Your task to perform on an android device: Show me popular games on the Play Store Image 0: 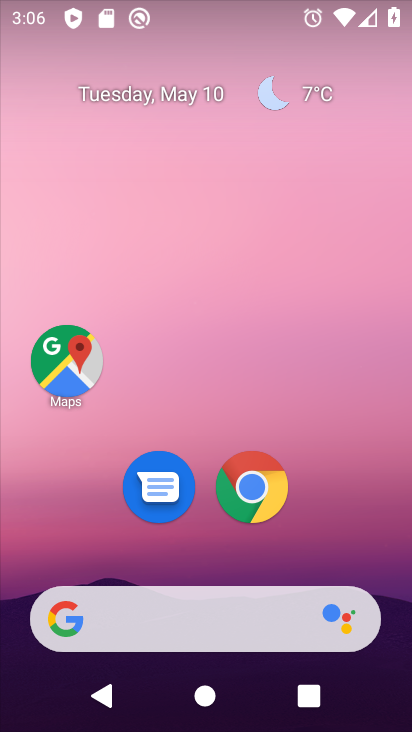
Step 0: drag from (338, 504) to (328, 129)
Your task to perform on an android device: Show me popular games on the Play Store Image 1: 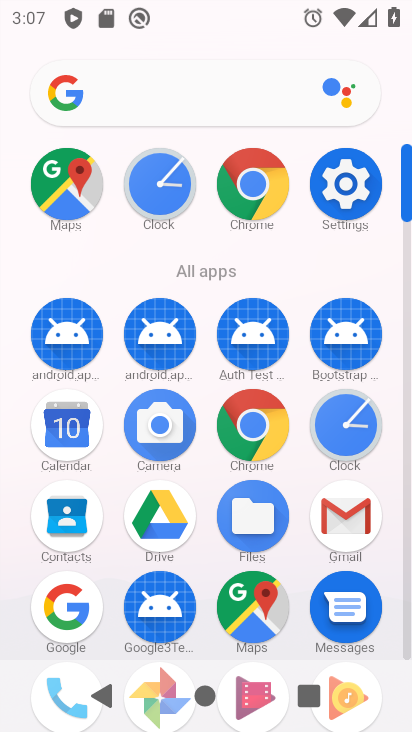
Step 1: drag from (303, 585) to (352, 264)
Your task to perform on an android device: Show me popular games on the Play Store Image 2: 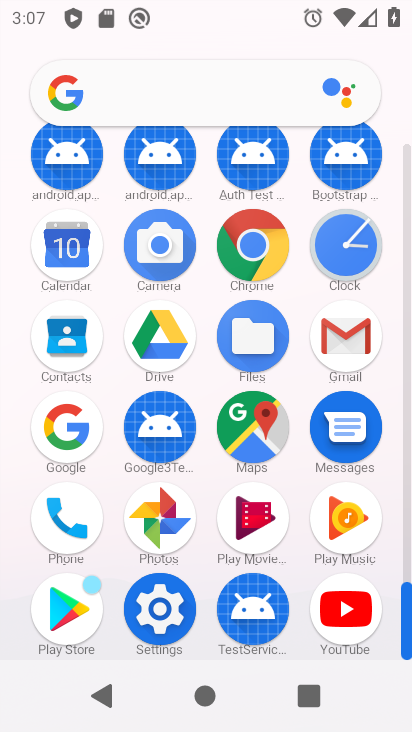
Step 2: click (70, 606)
Your task to perform on an android device: Show me popular games on the Play Store Image 3: 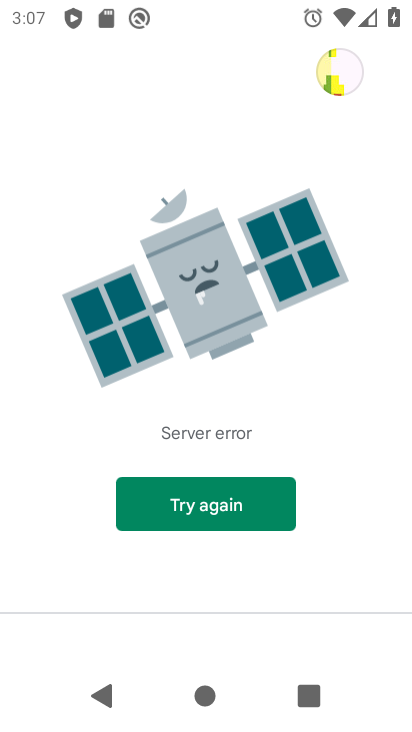
Step 3: task complete